Your task to perform on an android device: Open Google Chrome and open the bookmarks view Image 0: 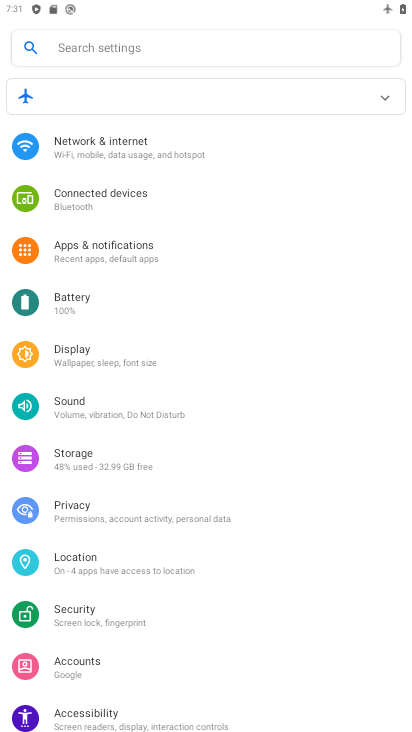
Step 0: press home button
Your task to perform on an android device: Open Google Chrome and open the bookmarks view Image 1: 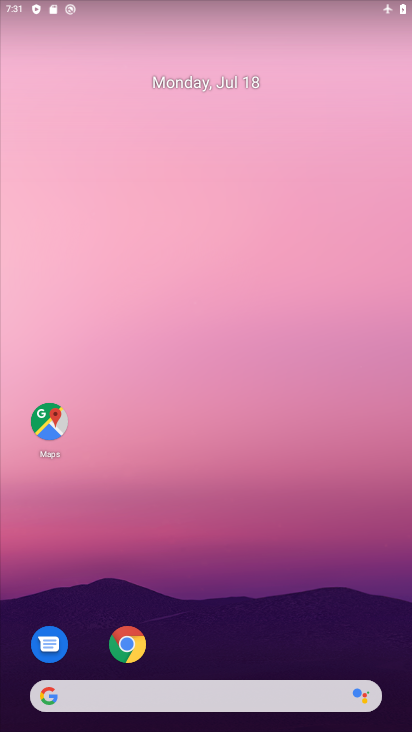
Step 1: drag from (326, 610) to (405, 279)
Your task to perform on an android device: Open Google Chrome and open the bookmarks view Image 2: 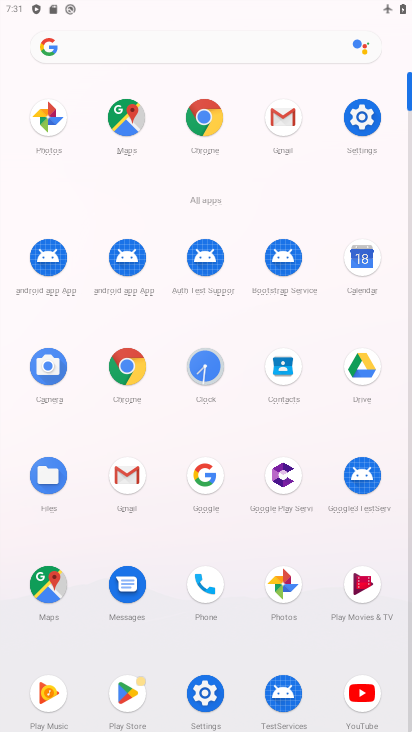
Step 2: click (135, 367)
Your task to perform on an android device: Open Google Chrome and open the bookmarks view Image 3: 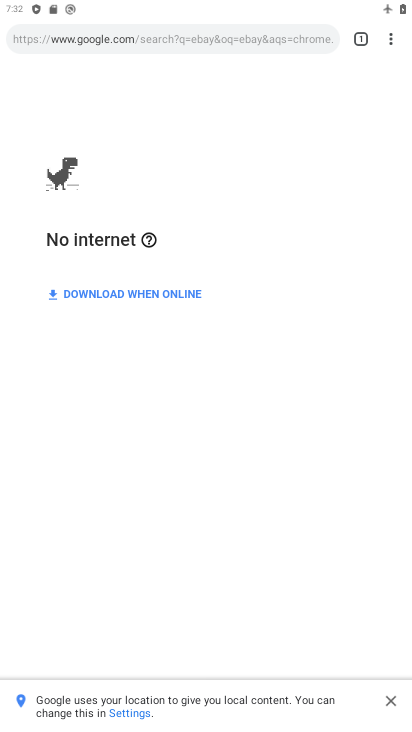
Step 3: click (390, 40)
Your task to perform on an android device: Open Google Chrome and open the bookmarks view Image 4: 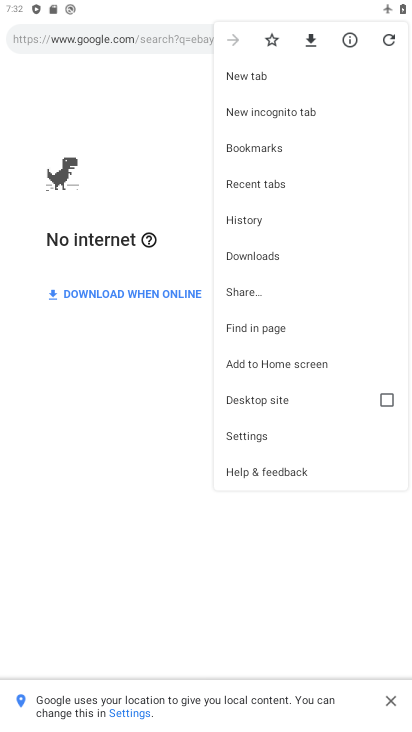
Step 4: click (298, 151)
Your task to perform on an android device: Open Google Chrome and open the bookmarks view Image 5: 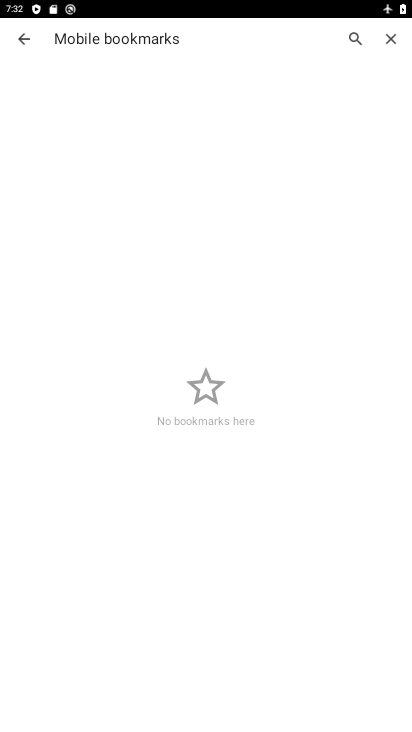
Step 5: task complete